Your task to perform on an android device: choose inbox layout in the gmail app Image 0: 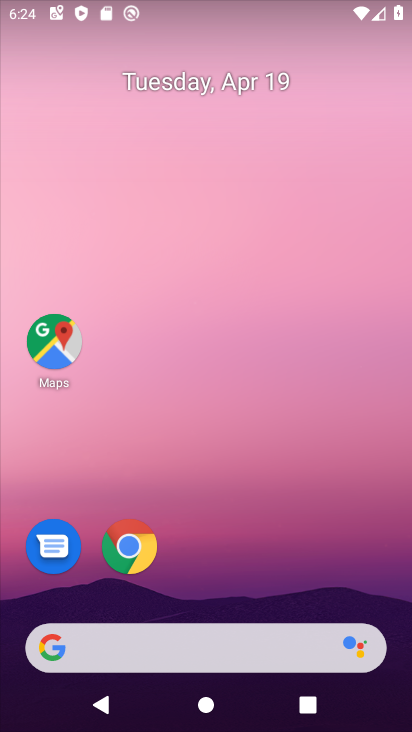
Step 0: drag from (271, 565) to (245, 31)
Your task to perform on an android device: choose inbox layout in the gmail app Image 1: 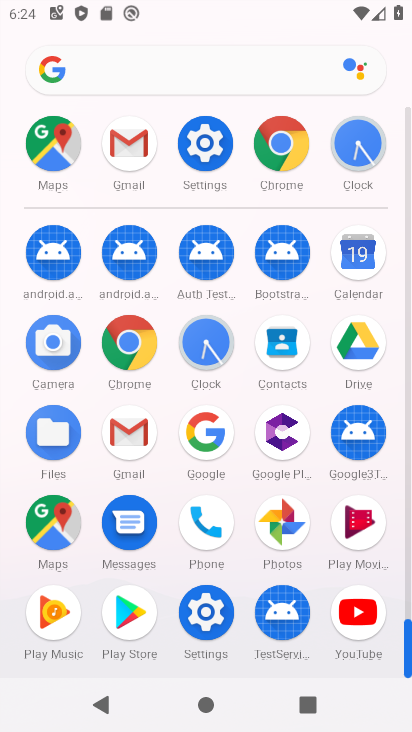
Step 1: click (126, 147)
Your task to perform on an android device: choose inbox layout in the gmail app Image 2: 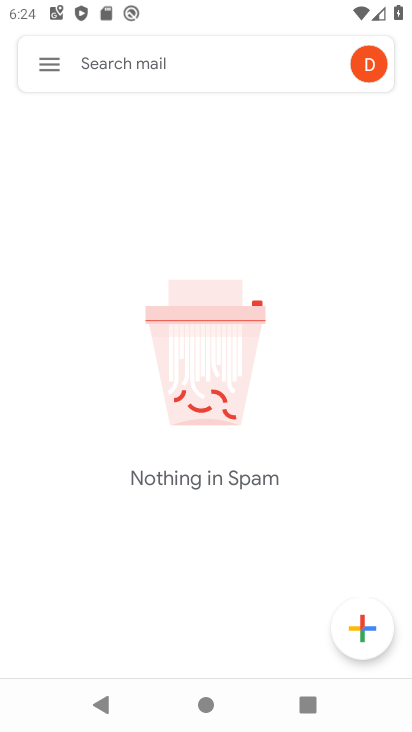
Step 2: click (47, 65)
Your task to perform on an android device: choose inbox layout in the gmail app Image 3: 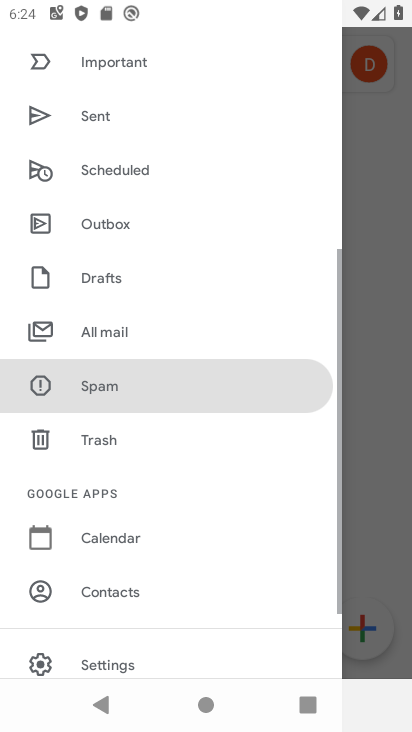
Step 3: drag from (158, 525) to (295, 143)
Your task to perform on an android device: choose inbox layout in the gmail app Image 4: 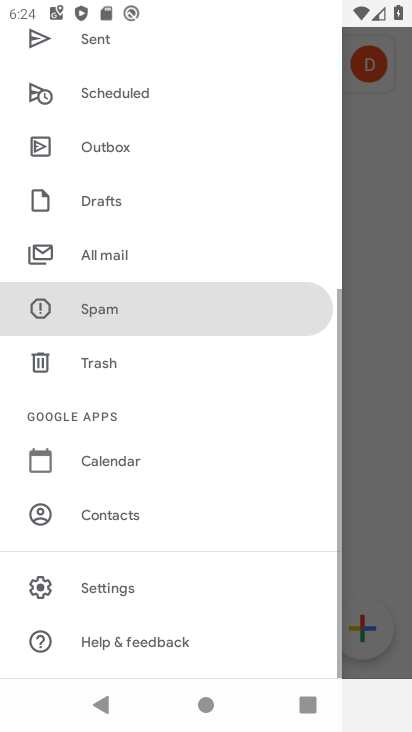
Step 4: click (114, 583)
Your task to perform on an android device: choose inbox layout in the gmail app Image 5: 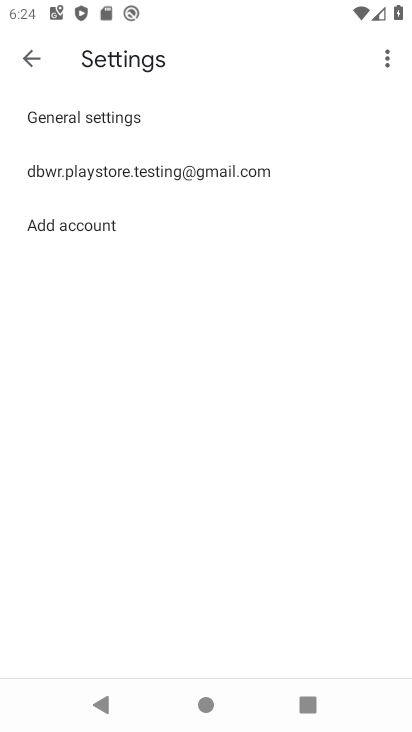
Step 5: click (155, 172)
Your task to perform on an android device: choose inbox layout in the gmail app Image 6: 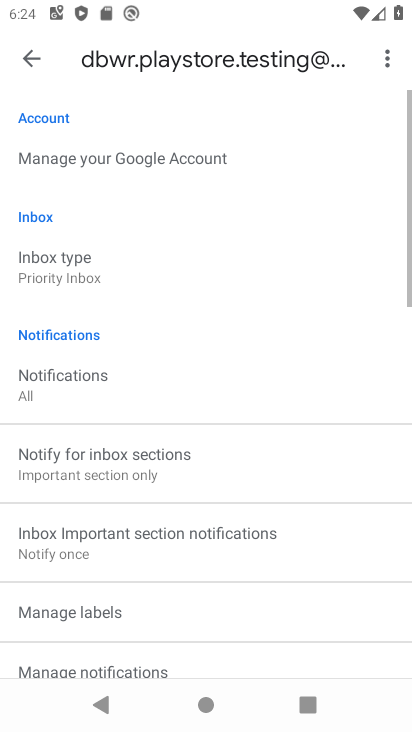
Step 6: click (79, 281)
Your task to perform on an android device: choose inbox layout in the gmail app Image 7: 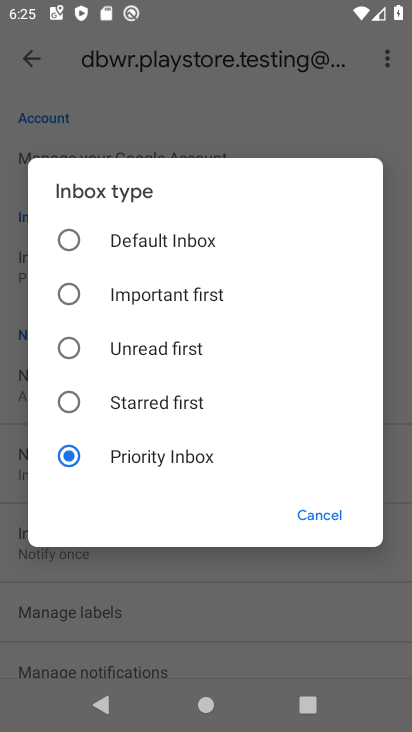
Step 7: task complete